Your task to perform on an android device: toggle javascript in the chrome app Image 0: 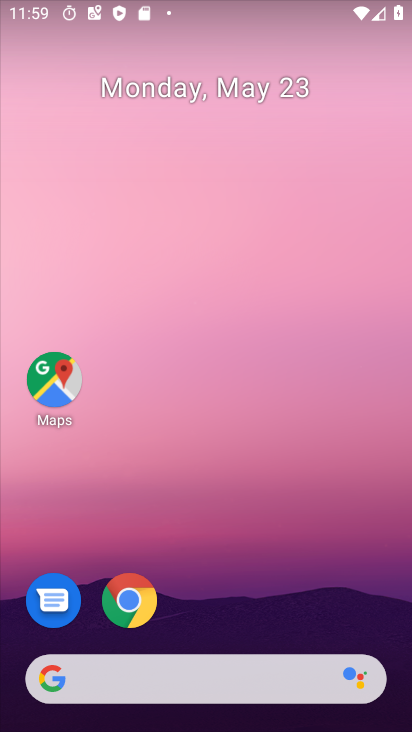
Step 0: click (128, 605)
Your task to perform on an android device: toggle javascript in the chrome app Image 1: 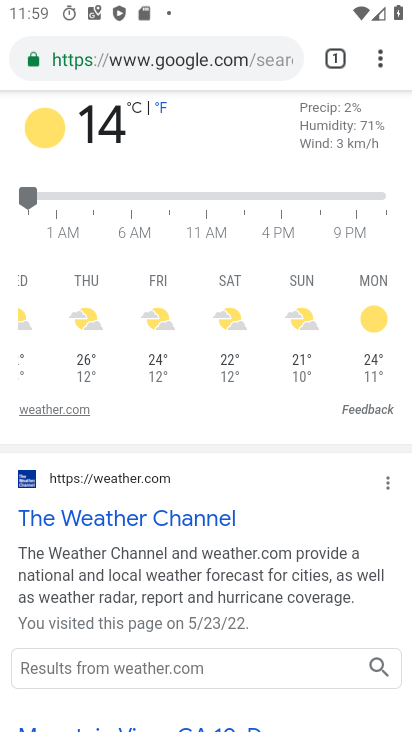
Step 1: click (378, 53)
Your task to perform on an android device: toggle javascript in the chrome app Image 2: 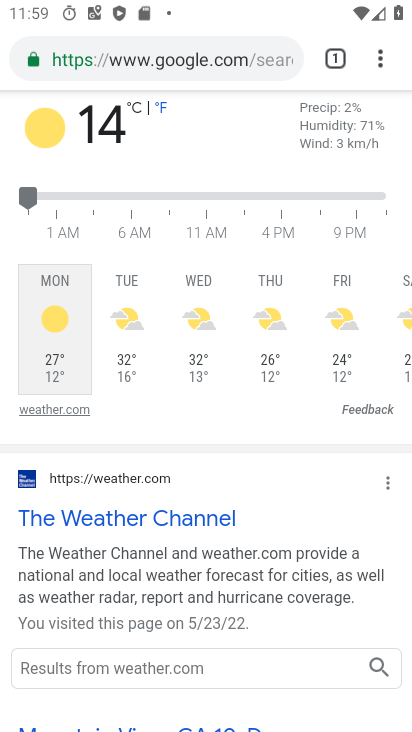
Step 2: click (384, 60)
Your task to perform on an android device: toggle javascript in the chrome app Image 3: 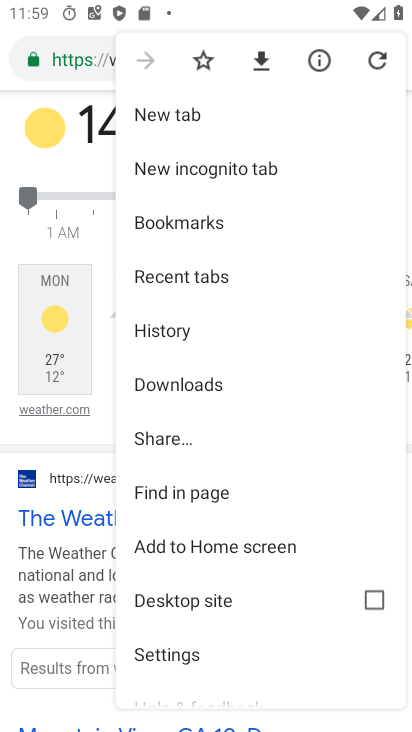
Step 3: click (174, 659)
Your task to perform on an android device: toggle javascript in the chrome app Image 4: 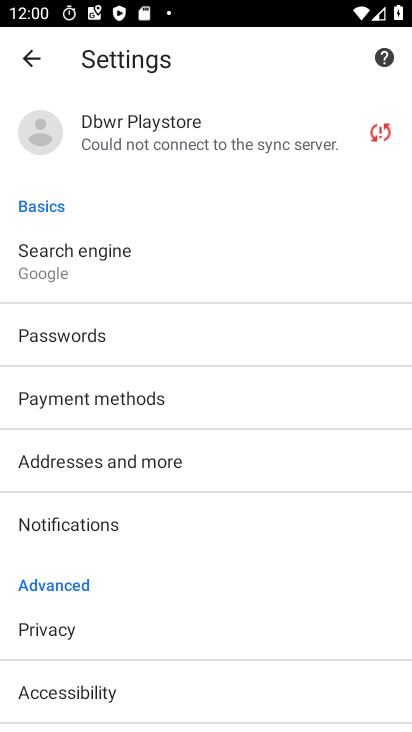
Step 4: drag from (195, 633) to (240, 241)
Your task to perform on an android device: toggle javascript in the chrome app Image 5: 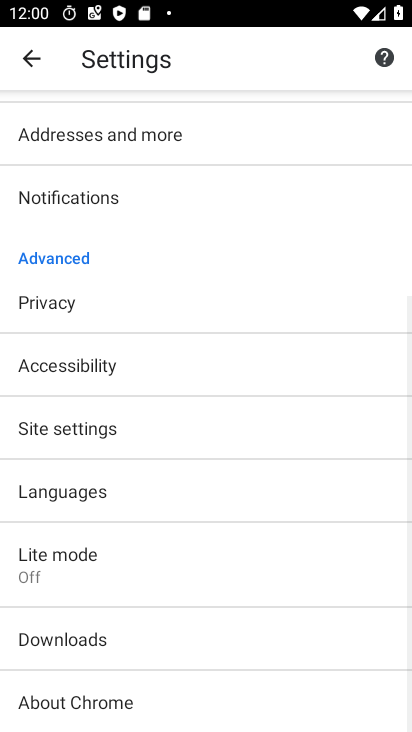
Step 5: click (99, 423)
Your task to perform on an android device: toggle javascript in the chrome app Image 6: 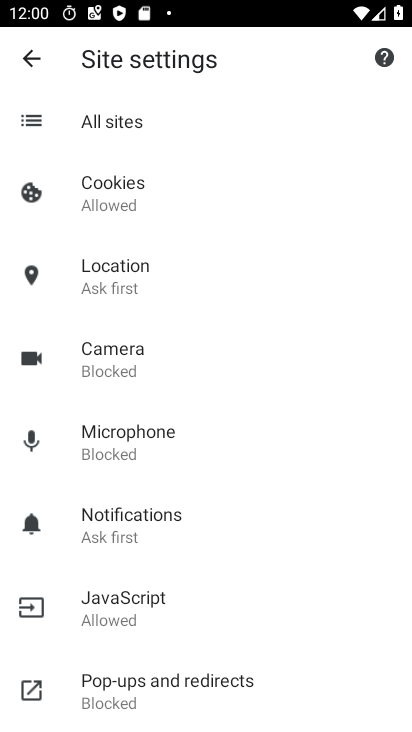
Step 6: click (127, 620)
Your task to perform on an android device: toggle javascript in the chrome app Image 7: 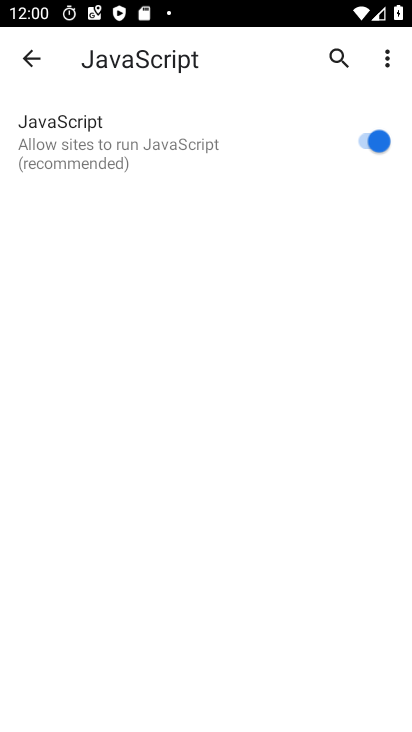
Step 7: click (379, 140)
Your task to perform on an android device: toggle javascript in the chrome app Image 8: 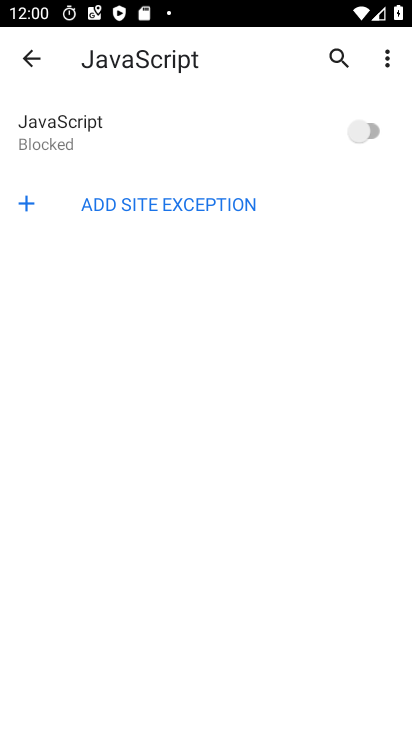
Step 8: task complete